Your task to perform on an android device: change the clock display to show seconds Image 0: 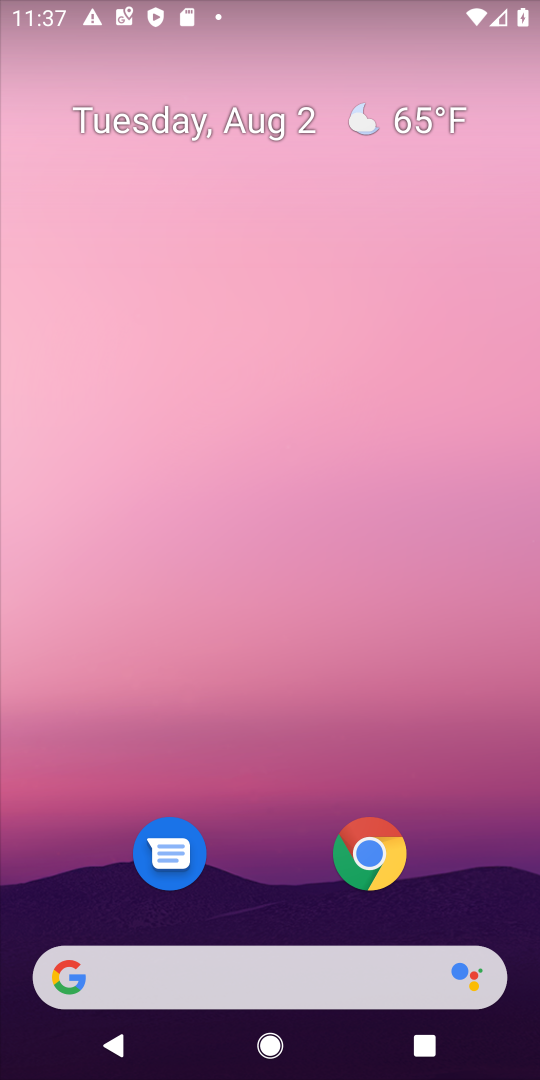
Step 0: press home button
Your task to perform on an android device: change the clock display to show seconds Image 1: 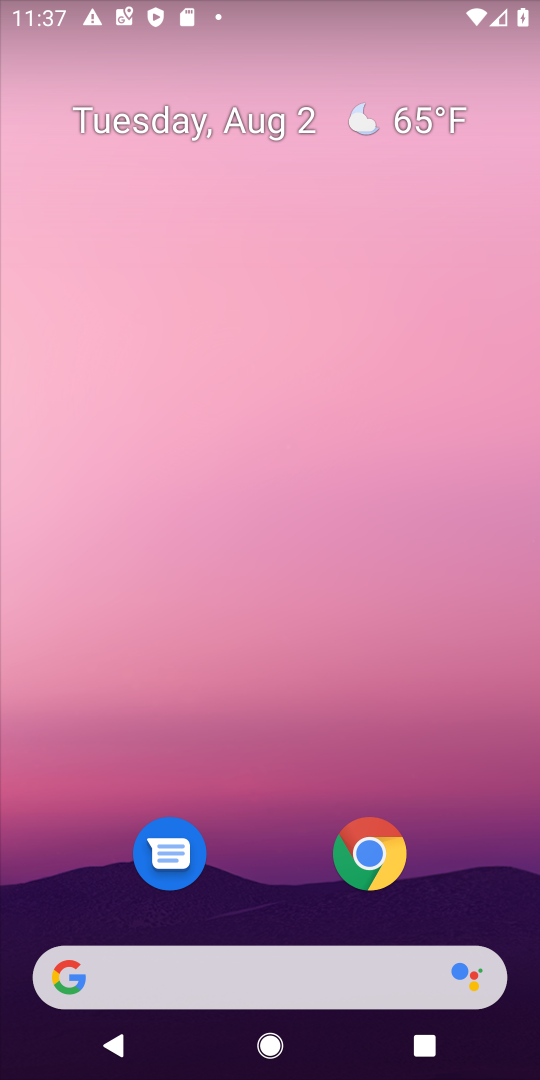
Step 1: click (276, 252)
Your task to perform on an android device: change the clock display to show seconds Image 2: 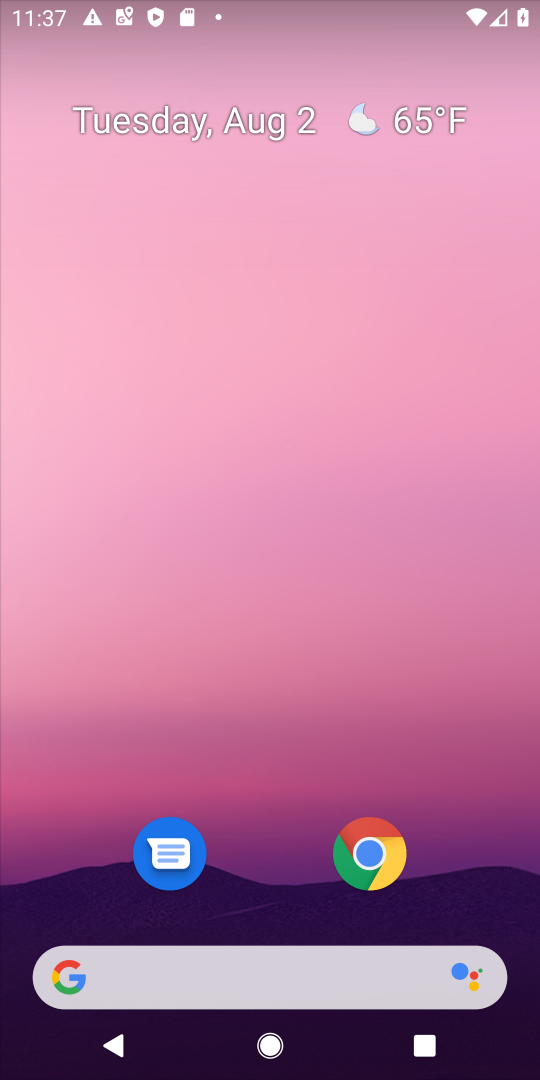
Step 2: drag from (247, 838) to (293, 299)
Your task to perform on an android device: change the clock display to show seconds Image 3: 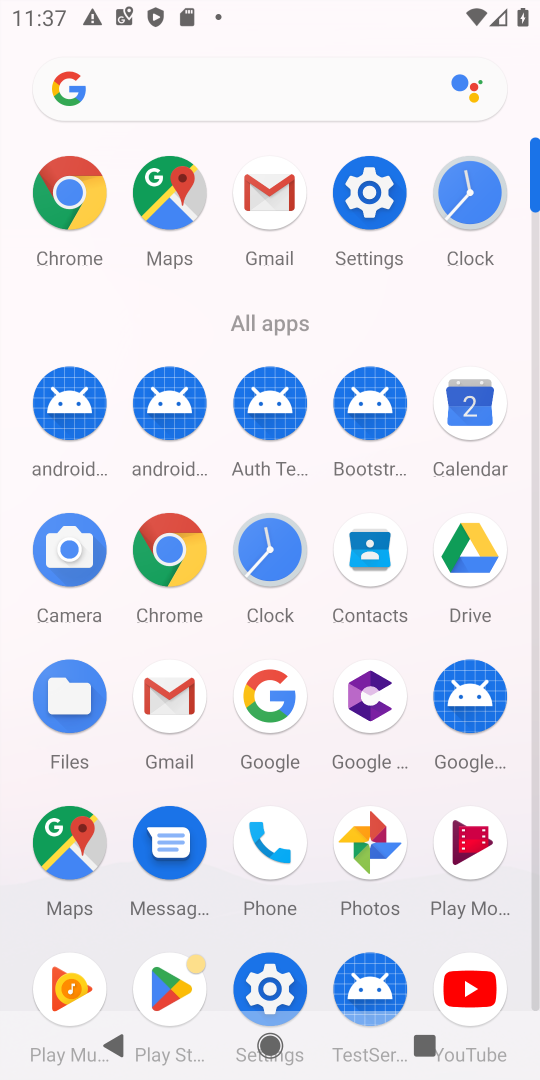
Step 3: click (254, 985)
Your task to perform on an android device: change the clock display to show seconds Image 4: 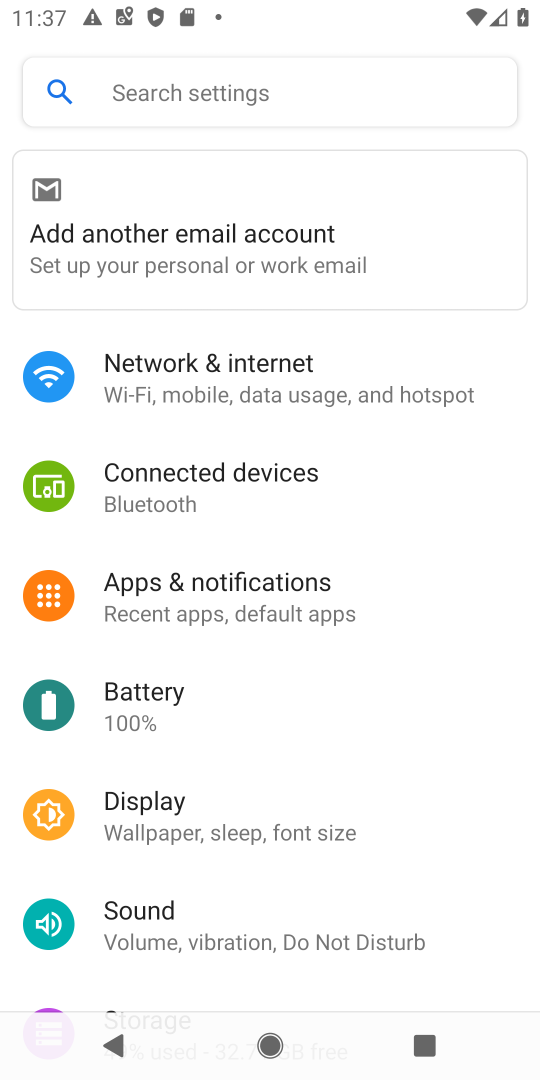
Step 4: press home button
Your task to perform on an android device: change the clock display to show seconds Image 5: 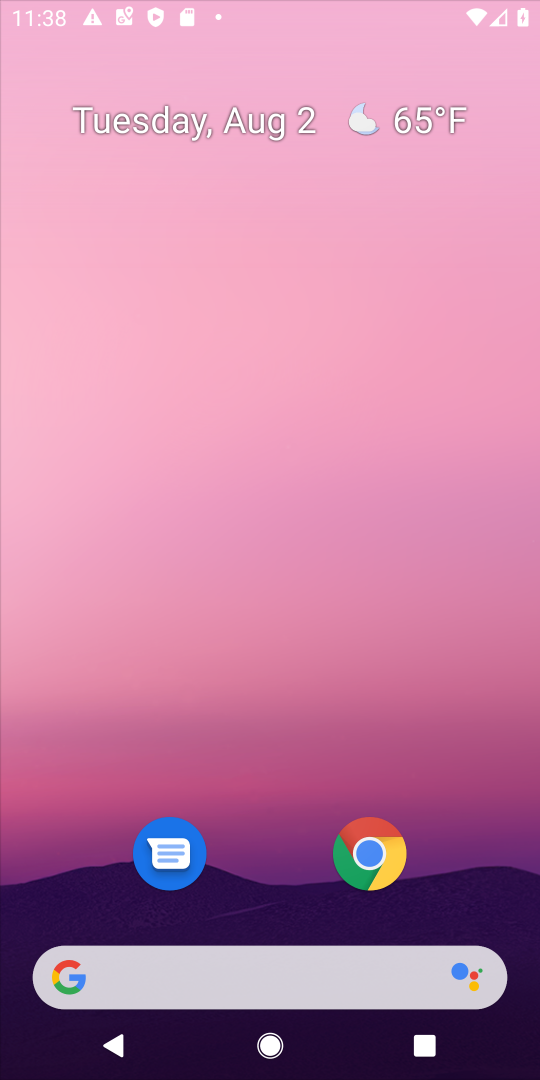
Step 5: drag from (405, 822) to (480, 202)
Your task to perform on an android device: change the clock display to show seconds Image 6: 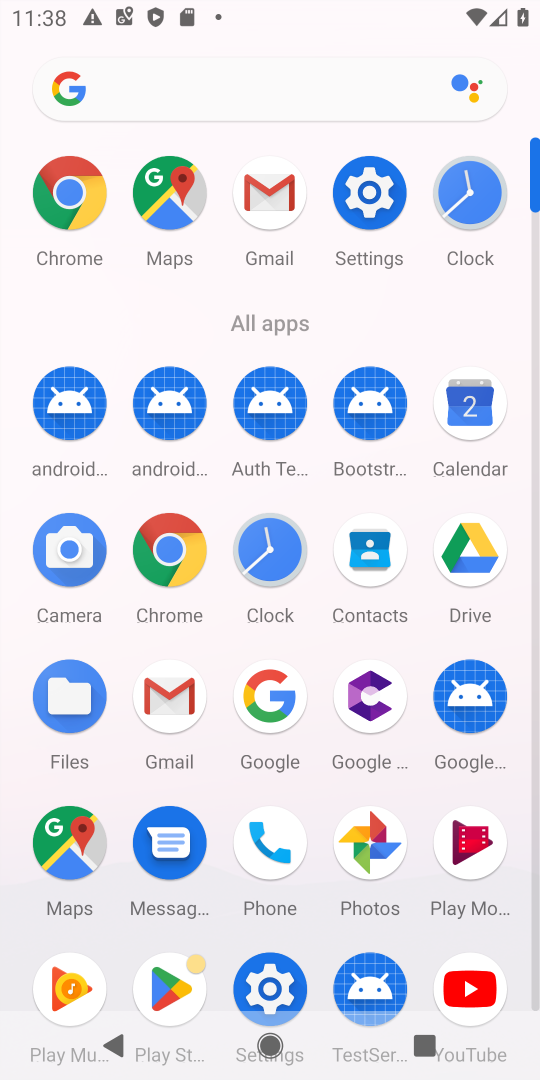
Step 6: click (268, 534)
Your task to perform on an android device: change the clock display to show seconds Image 7: 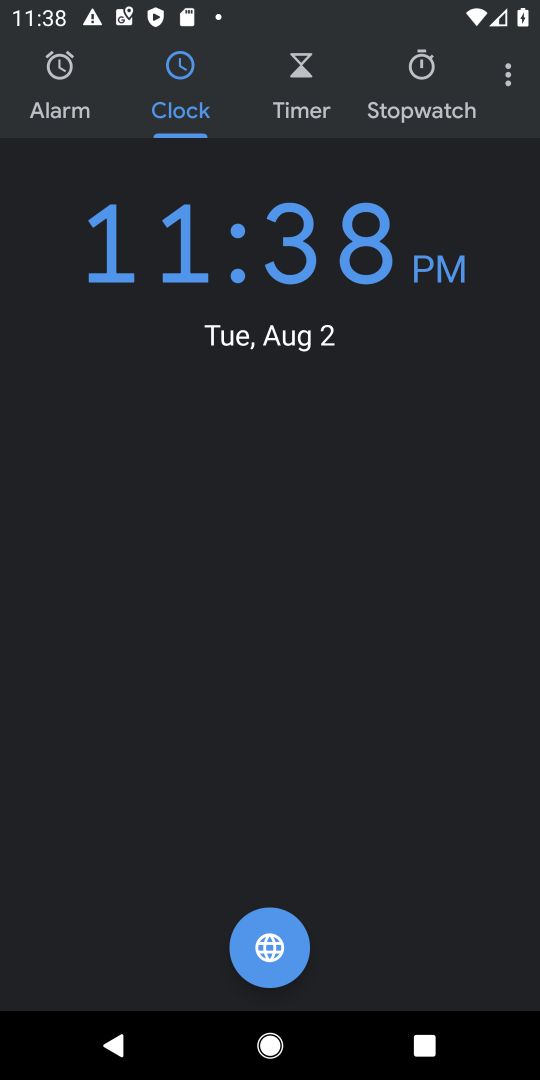
Step 7: click (507, 80)
Your task to perform on an android device: change the clock display to show seconds Image 8: 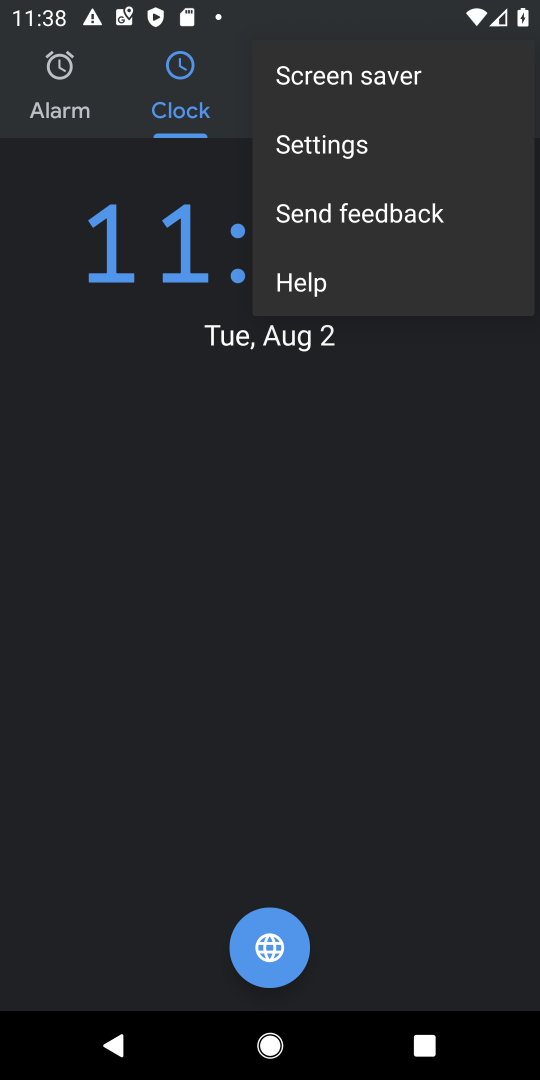
Step 8: click (363, 152)
Your task to perform on an android device: change the clock display to show seconds Image 9: 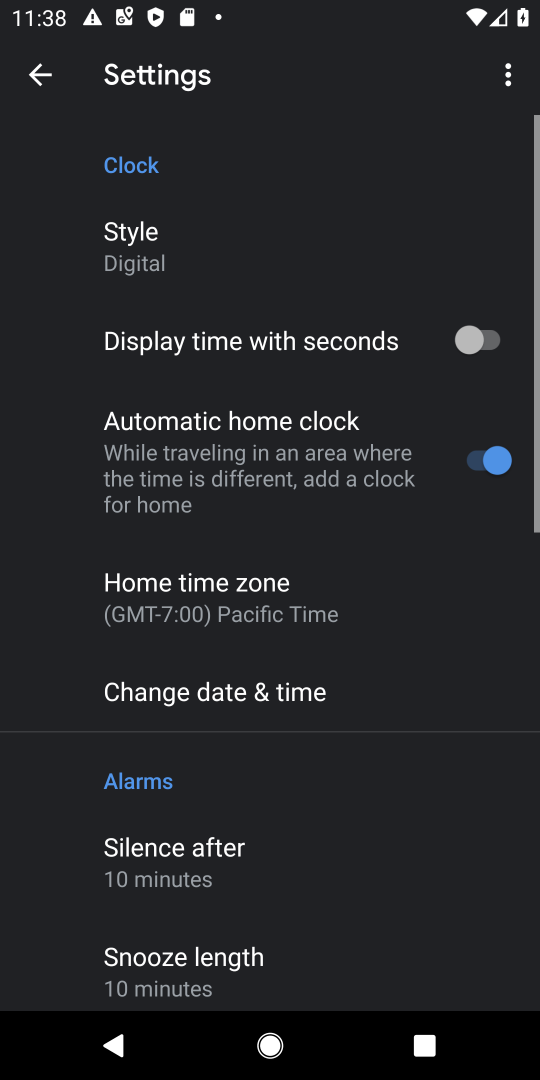
Step 9: click (195, 232)
Your task to perform on an android device: change the clock display to show seconds Image 10: 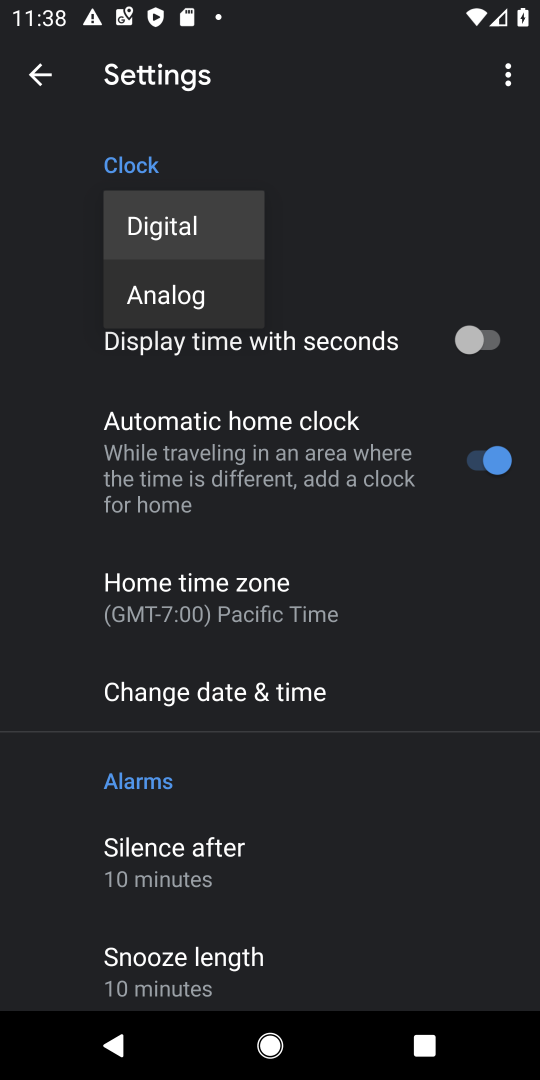
Step 10: click (406, 214)
Your task to perform on an android device: change the clock display to show seconds Image 11: 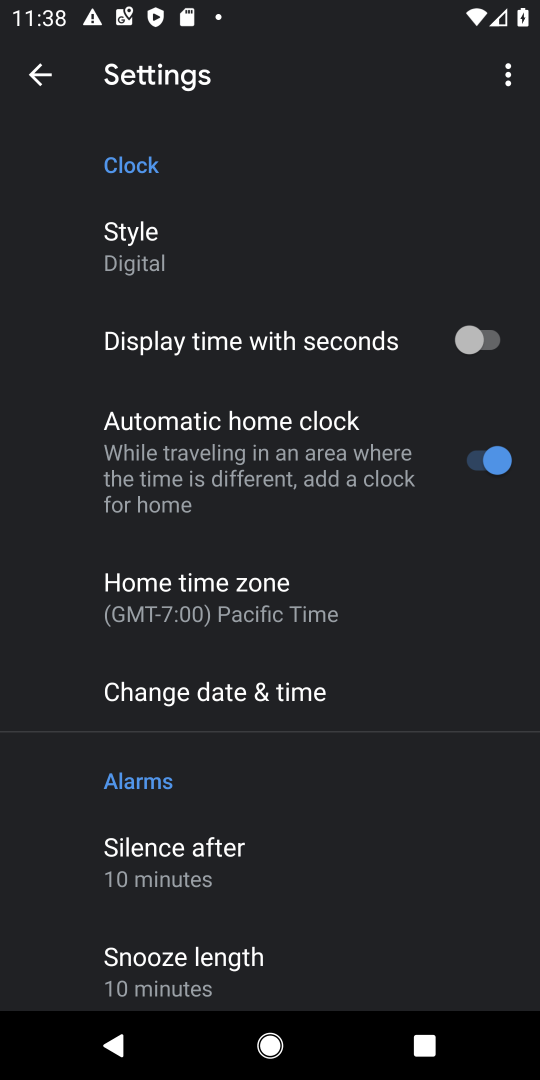
Step 11: click (273, 353)
Your task to perform on an android device: change the clock display to show seconds Image 12: 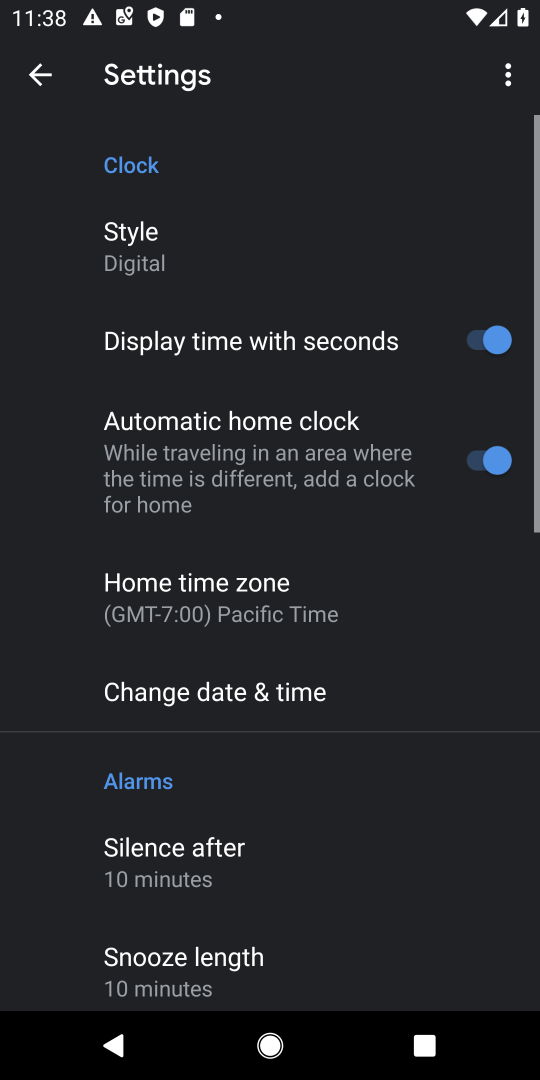
Step 12: task complete